Your task to perform on an android device: delete a single message in the gmail app Image 0: 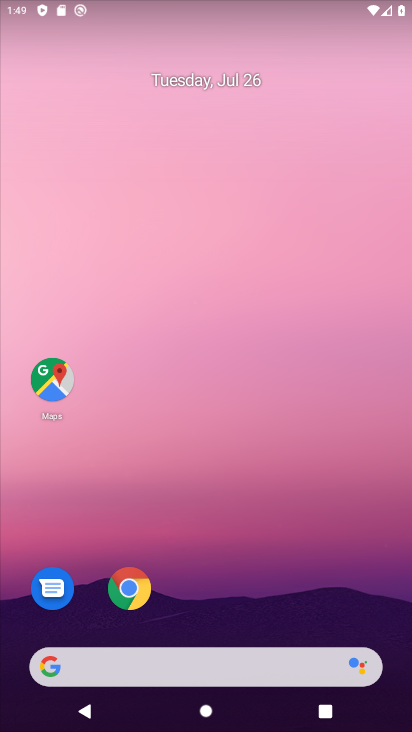
Step 0: drag from (240, 622) to (160, 174)
Your task to perform on an android device: delete a single message in the gmail app Image 1: 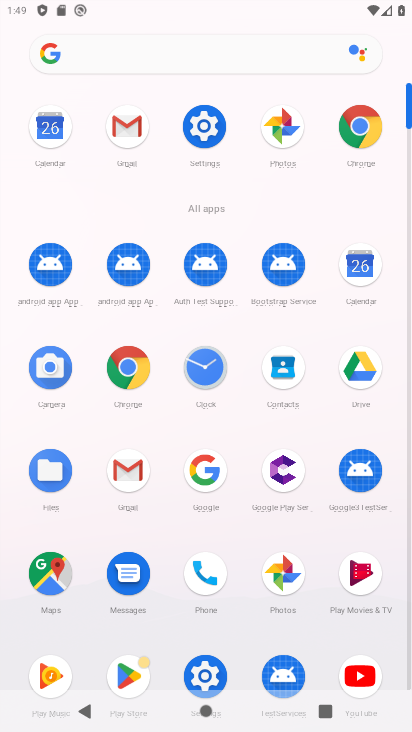
Step 1: click (136, 131)
Your task to perform on an android device: delete a single message in the gmail app Image 2: 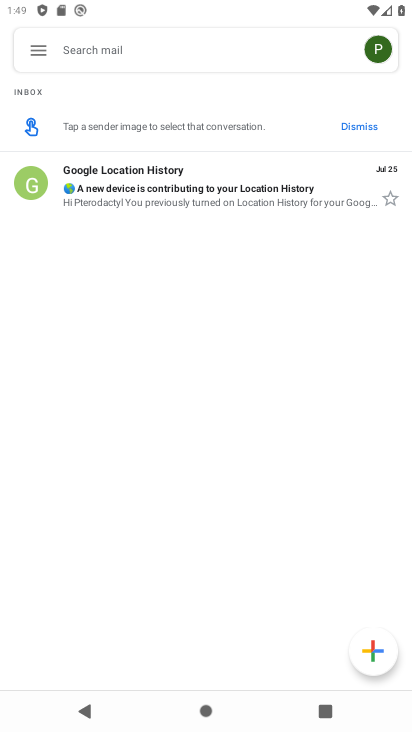
Step 2: click (164, 174)
Your task to perform on an android device: delete a single message in the gmail app Image 3: 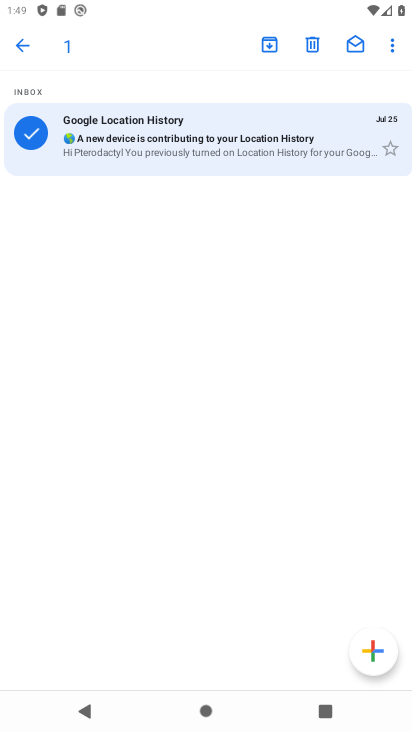
Step 3: click (312, 51)
Your task to perform on an android device: delete a single message in the gmail app Image 4: 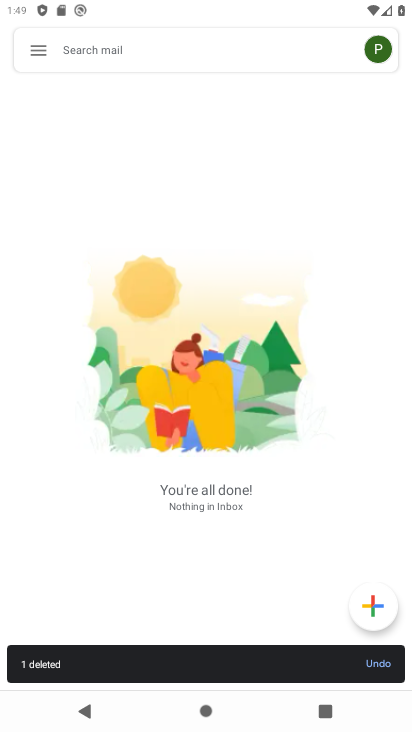
Step 4: task complete